Your task to perform on an android device: toggle location history Image 0: 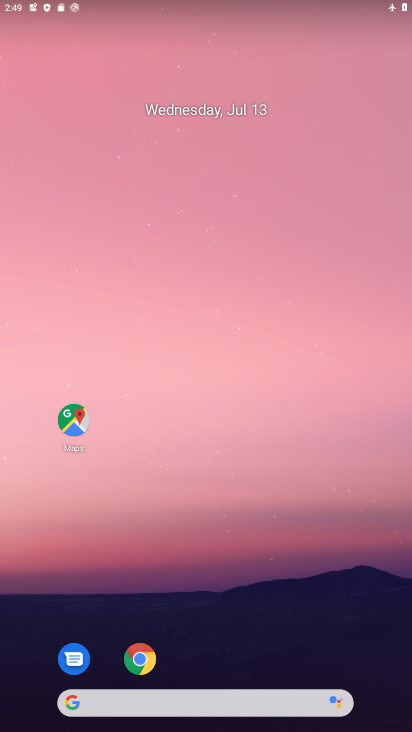
Step 0: click (71, 420)
Your task to perform on an android device: toggle location history Image 1: 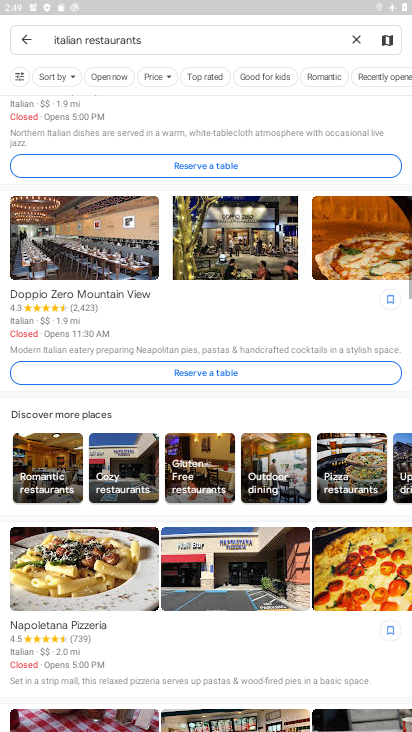
Step 1: click (350, 36)
Your task to perform on an android device: toggle location history Image 2: 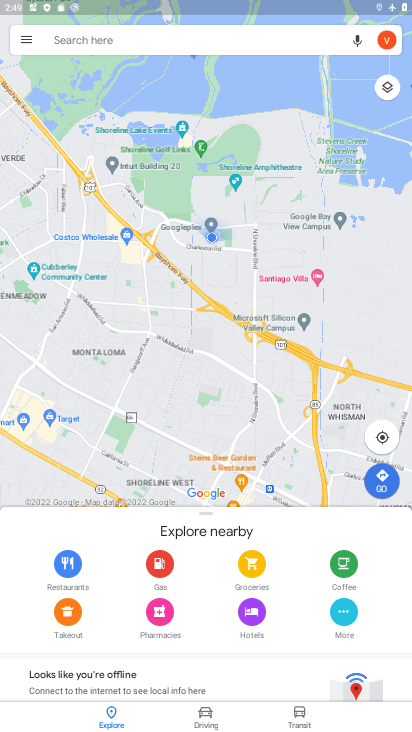
Step 2: click (23, 40)
Your task to perform on an android device: toggle location history Image 3: 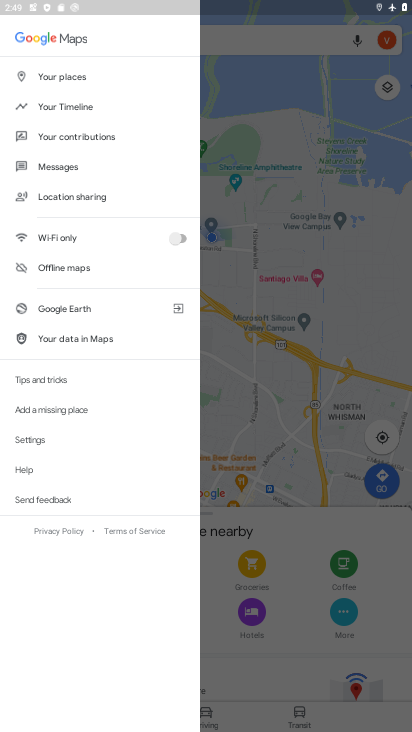
Step 3: click (29, 437)
Your task to perform on an android device: toggle location history Image 4: 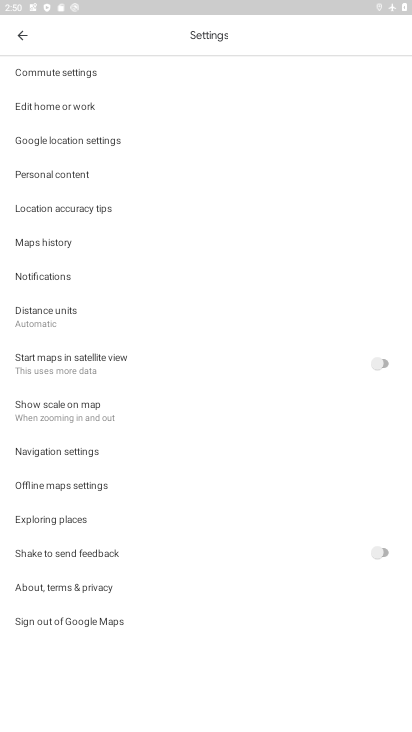
Step 4: click (43, 171)
Your task to perform on an android device: toggle location history Image 5: 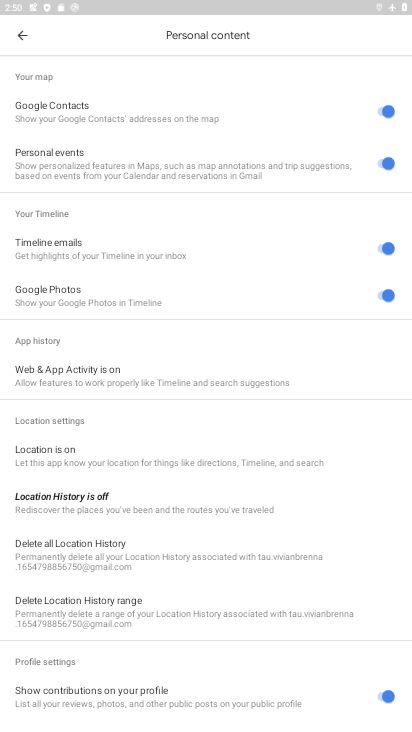
Step 5: click (65, 500)
Your task to perform on an android device: toggle location history Image 6: 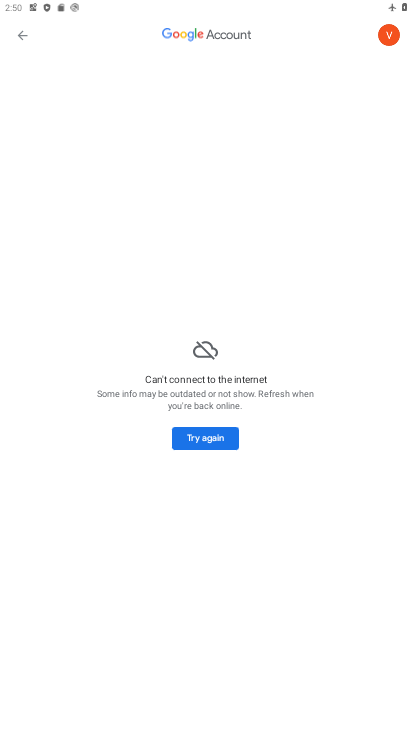
Step 6: click (199, 441)
Your task to perform on an android device: toggle location history Image 7: 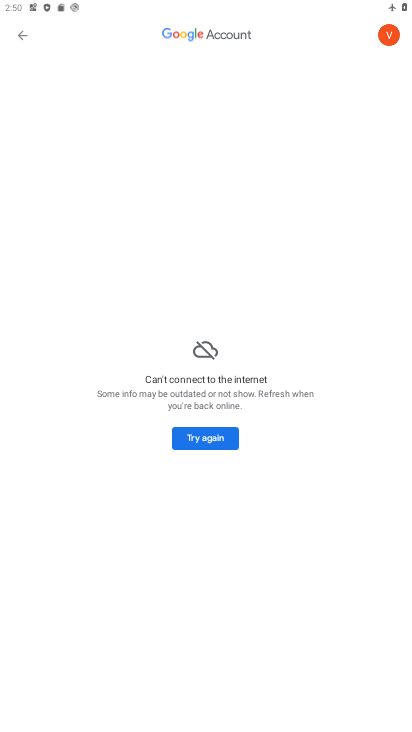
Step 7: click (202, 439)
Your task to perform on an android device: toggle location history Image 8: 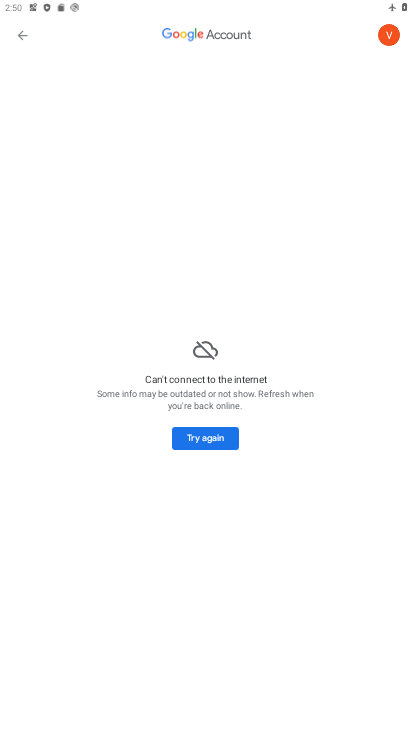
Step 8: task complete